Your task to perform on an android device: see sites visited before in the chrome app Image 0: 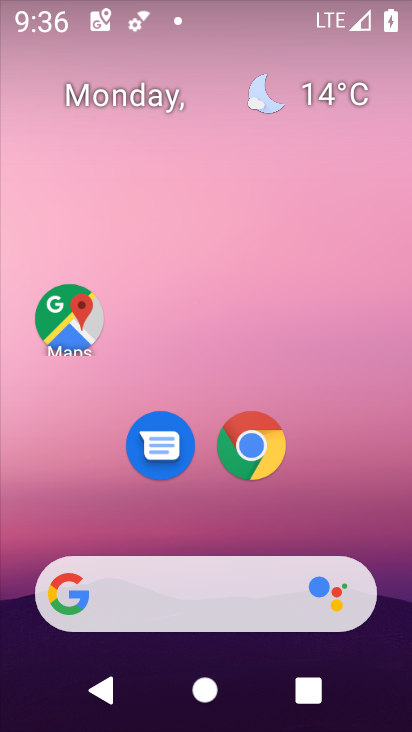
Step 0: click (250, 435)
Your task to perform on an android device: see sites visited before in the chrome app Image 1: 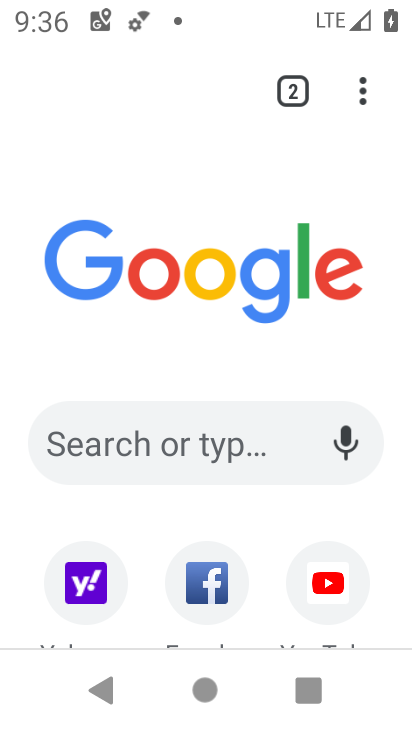
Step 1: click (364, 85)
Your task to perform on an android device: see sites visited before in the chrome app Image 2: 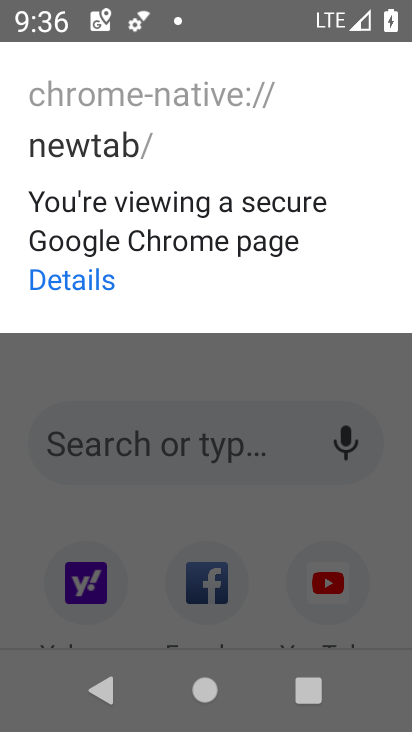
Step 2: click (118, 367)
Your task to perform on an android device: see sites visited before in the chrome app Image 3: 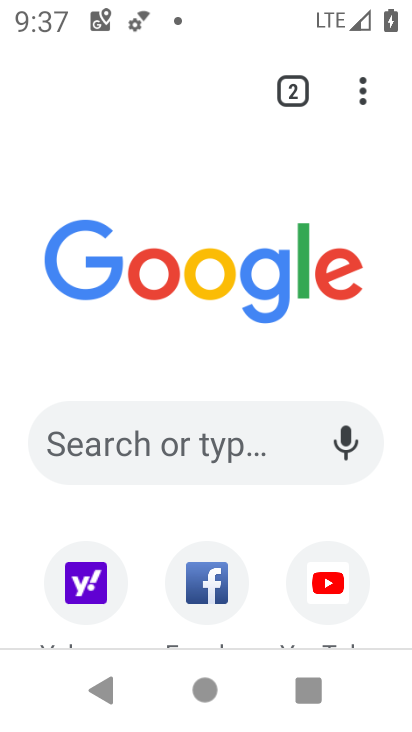
Step 3: click (362, 91)
Your task to perform on an android device: see sites visited before in the chrome app Image 4: 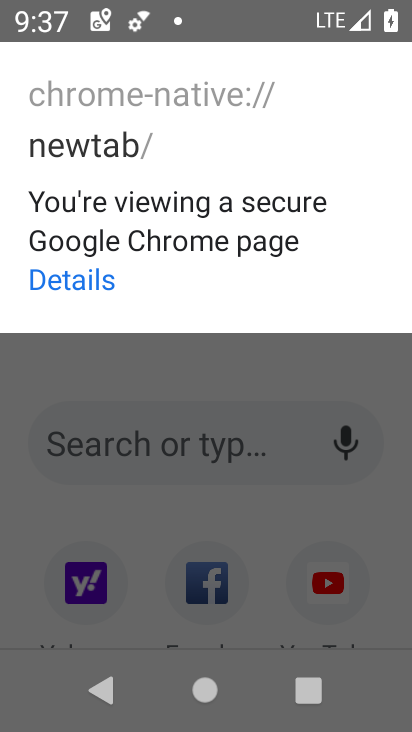
Step 4: click (223, 418)
Your task to perform on an android device: see sites visited before in the chrome app Image 5: 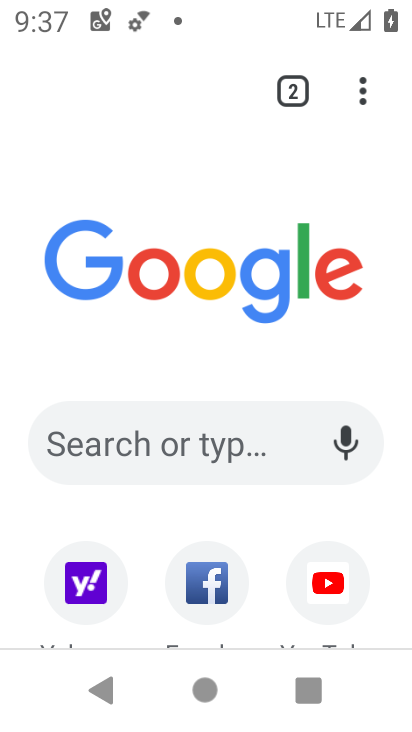
Step 5: click (360, 97)
Your task to perform on an android device: see sites visited before in the chrome app Image 6: 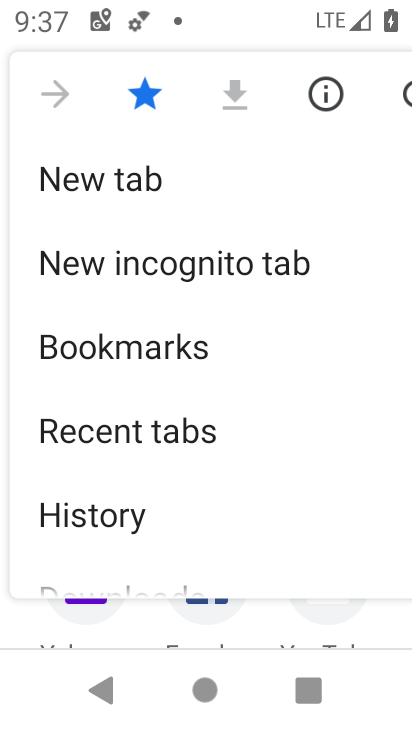
Step 6: click (155, 514)
Your task to perform on an android device: see sites visited before in the chrome app Image 7: 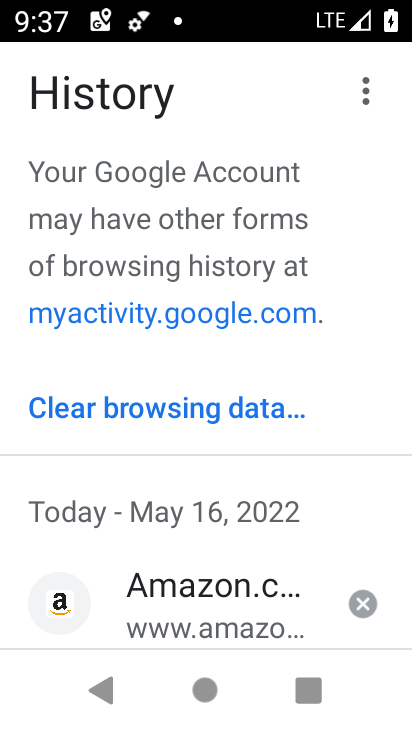
Step 7: task complete